Your task to perform on an android device: Go to Maps Image 0: 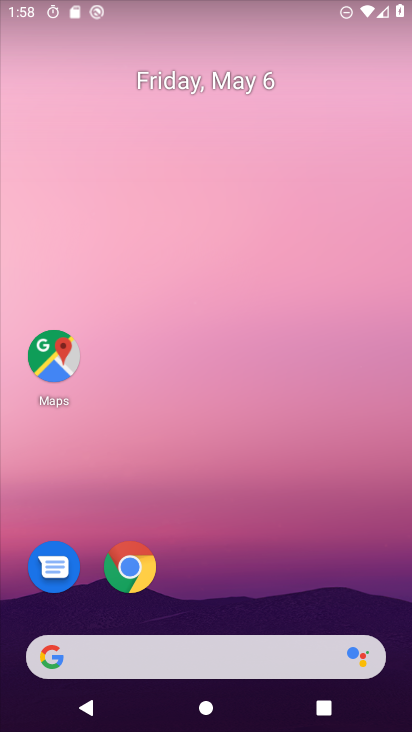
Step 0: drag from (271, 690) to (205, 159)
Your task to perform on an android device: Go to Maps Image 1: 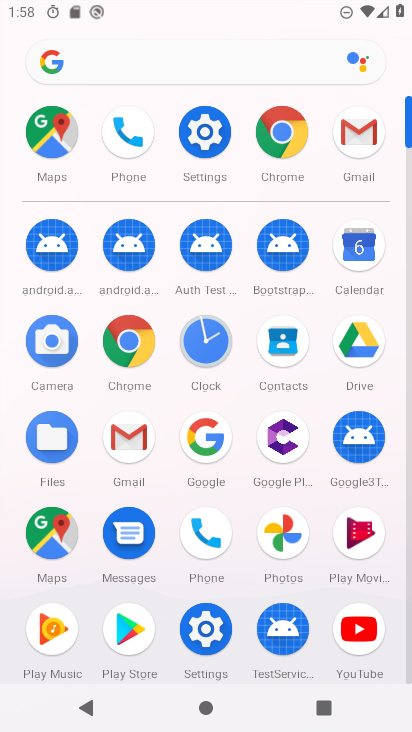
Step 1: click (50, 534)
Your task to perform on an android device: Go to Maps Image 2: 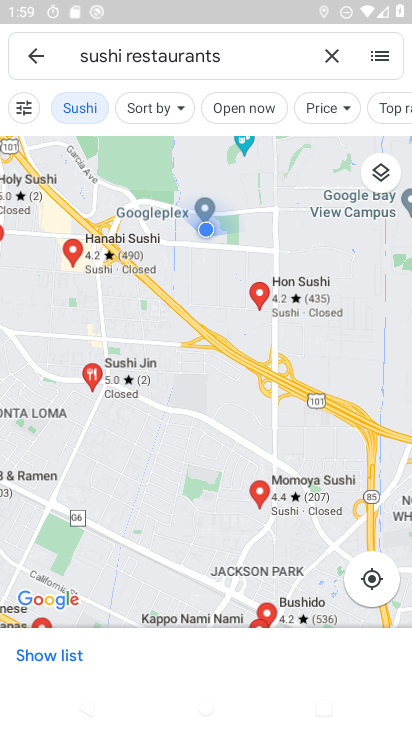
Step 2: click (29, 60)
Your task to perform on an android device: Go to Maps Image 3: 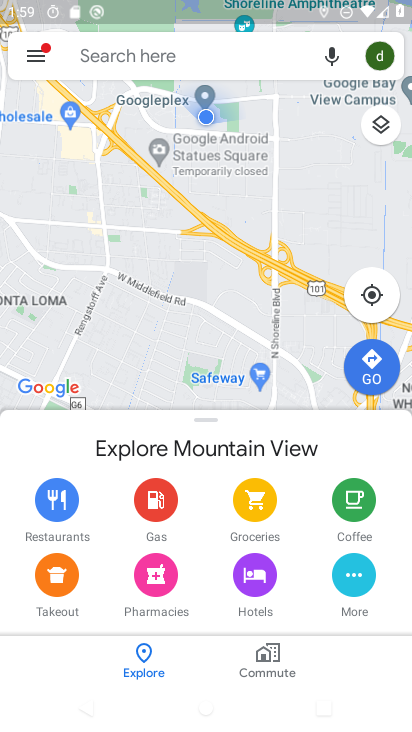
Step 3: click (359, 299)
Your task to perform on an android device: Go to Maps Image 4: 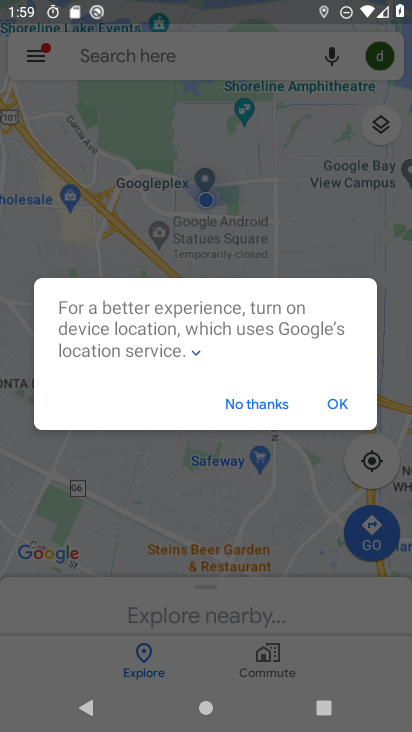
Step 4: task complete